Your task to perform on an android device: Go to eBay Image 0: 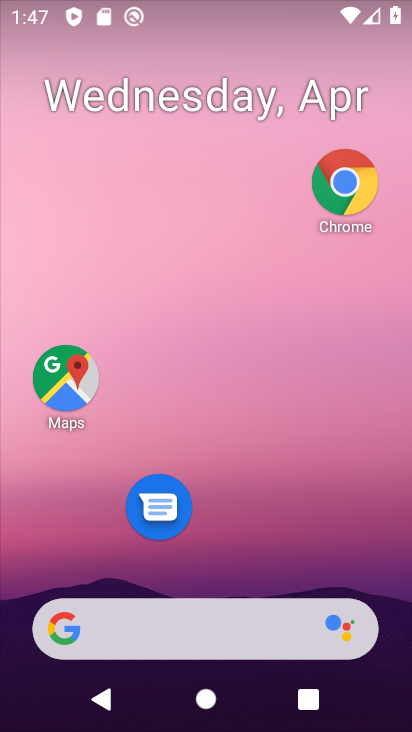
Step 0: drag from (255, 714) to (258, 61)
Your task to perform on an android device: Go to eBay Image 1: 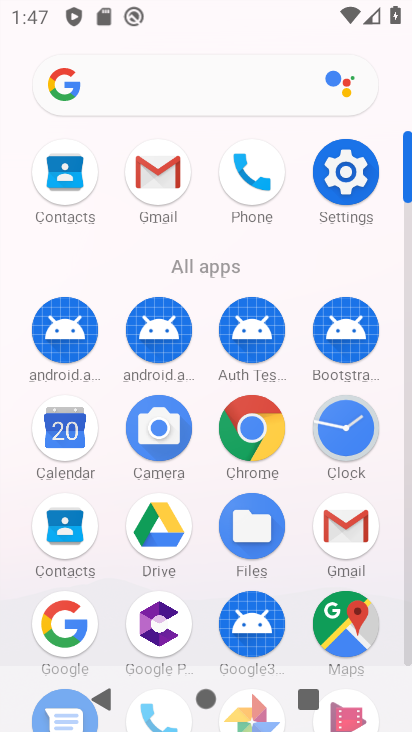
Step 1: click (253, 422)
Your task to perform on an android device: Go to eBay Image 2: 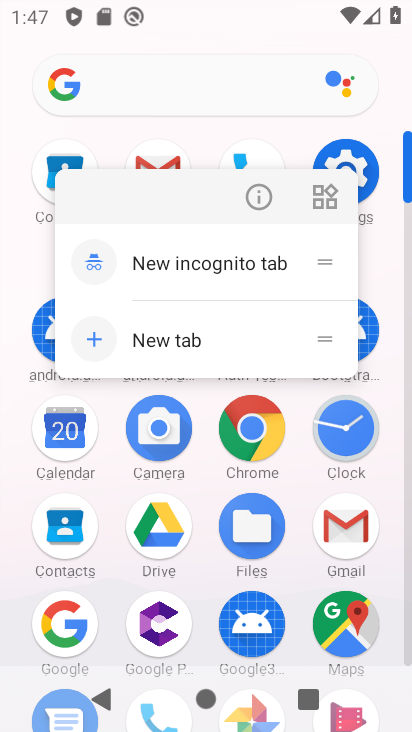
Step 2: click (245, 429)
Your task to perform on an android device: Go to eBay Image 3: 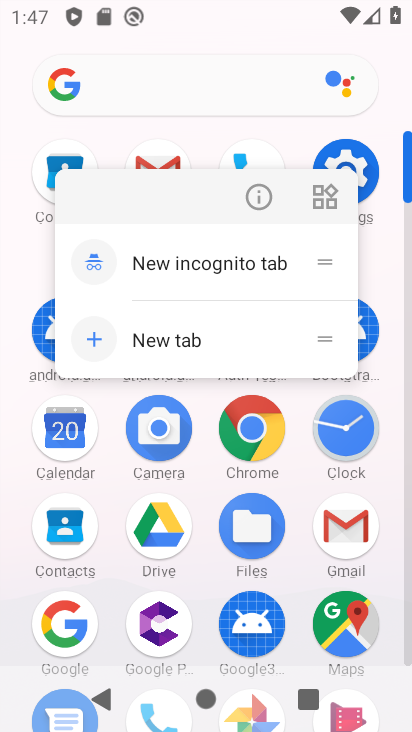
Step 3: click (245, 429)
Your task to perform on an android device: Go to eBay Image 4: 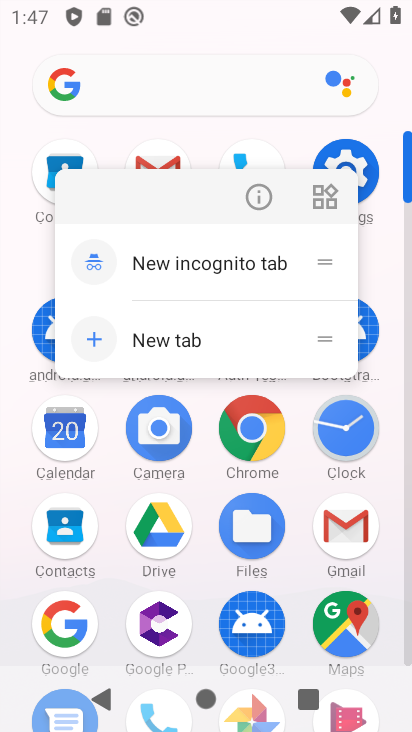
Step 4: press home button
Your task to perform on an android device: Go to eBay Image 5: 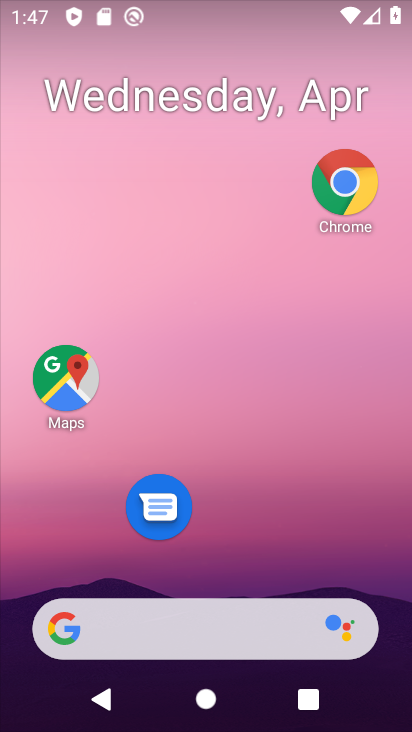
Step 5: click (223, 643)
Your task to perform on an android device: Go to eBay Image 6: 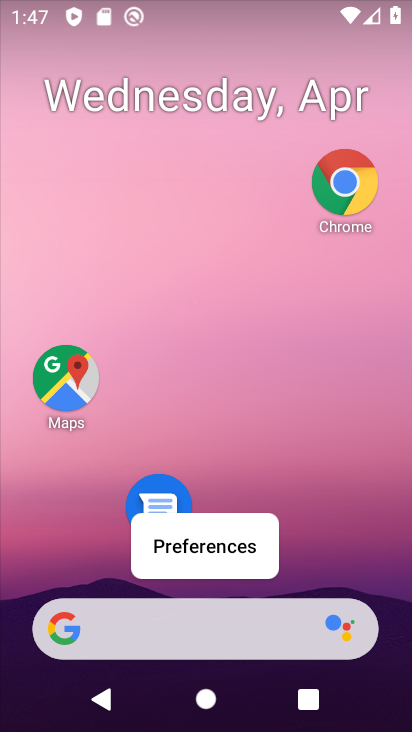
Step 6: click (251, 630)
Your task to perform on an android device: Go to eBay Image 7: 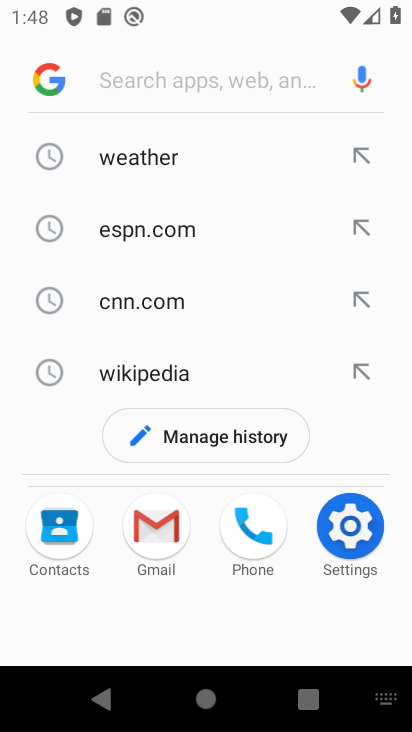
Step 7: type "ebay.com"
Your task to perform on an android device: Go to eBay Image 8: 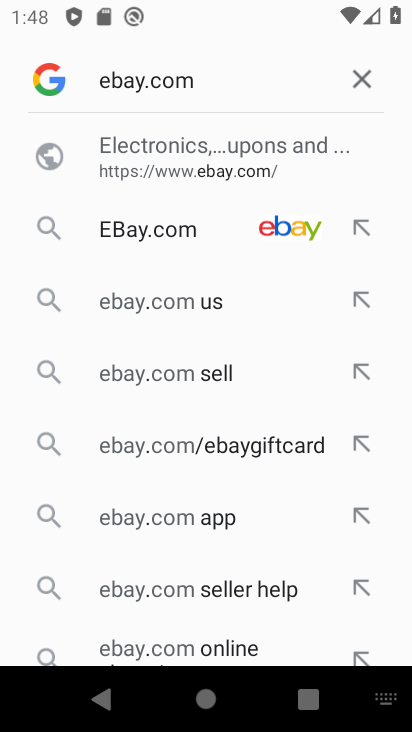
Step 8: click (214, 184)
Your task to perform on an android device: Go to eBay Image 9: 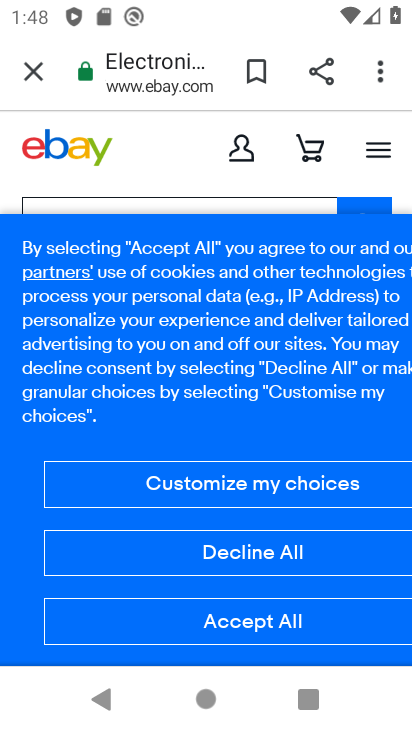
Step 9: task complete